Your task to perform on an android device: When is my next meeting? Image 0: 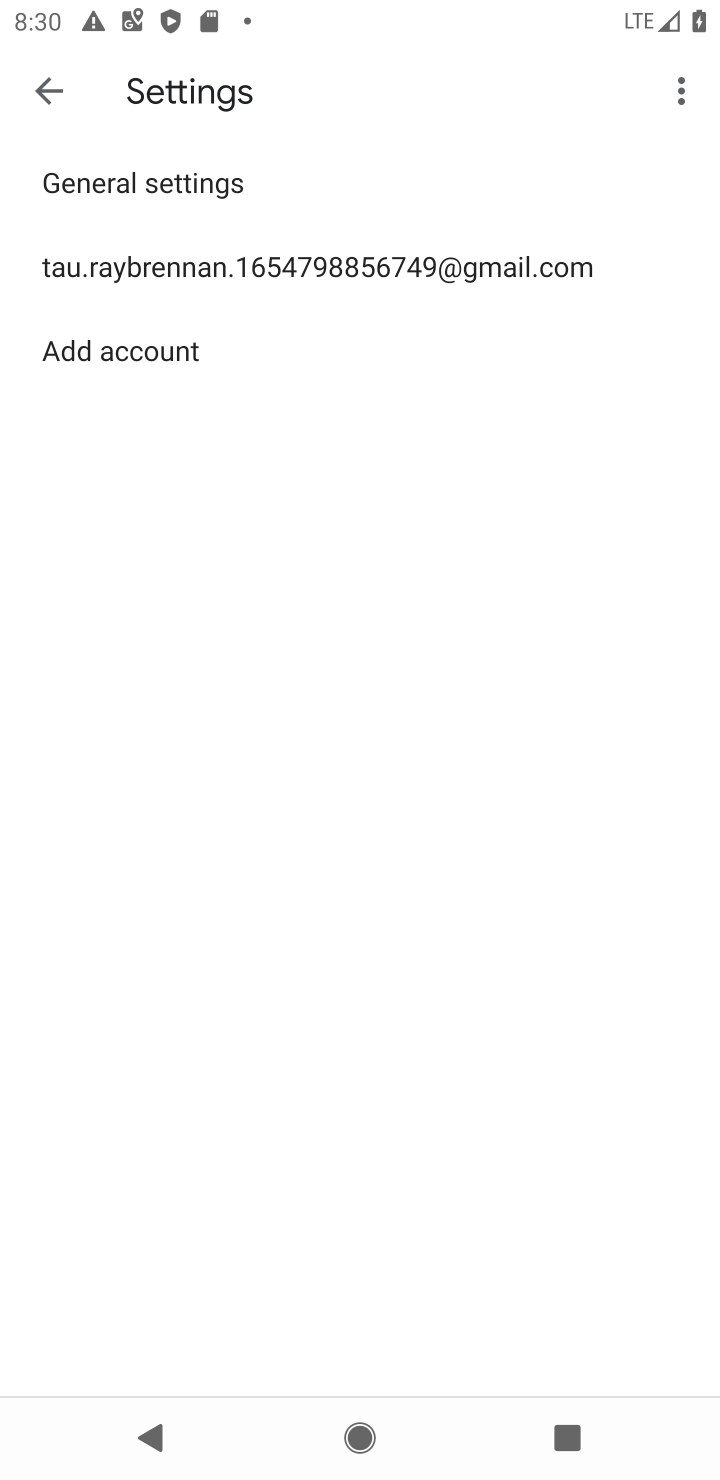
Step 0: press back button
Your task to perform on an android device: When is my next meeting? Image 1: 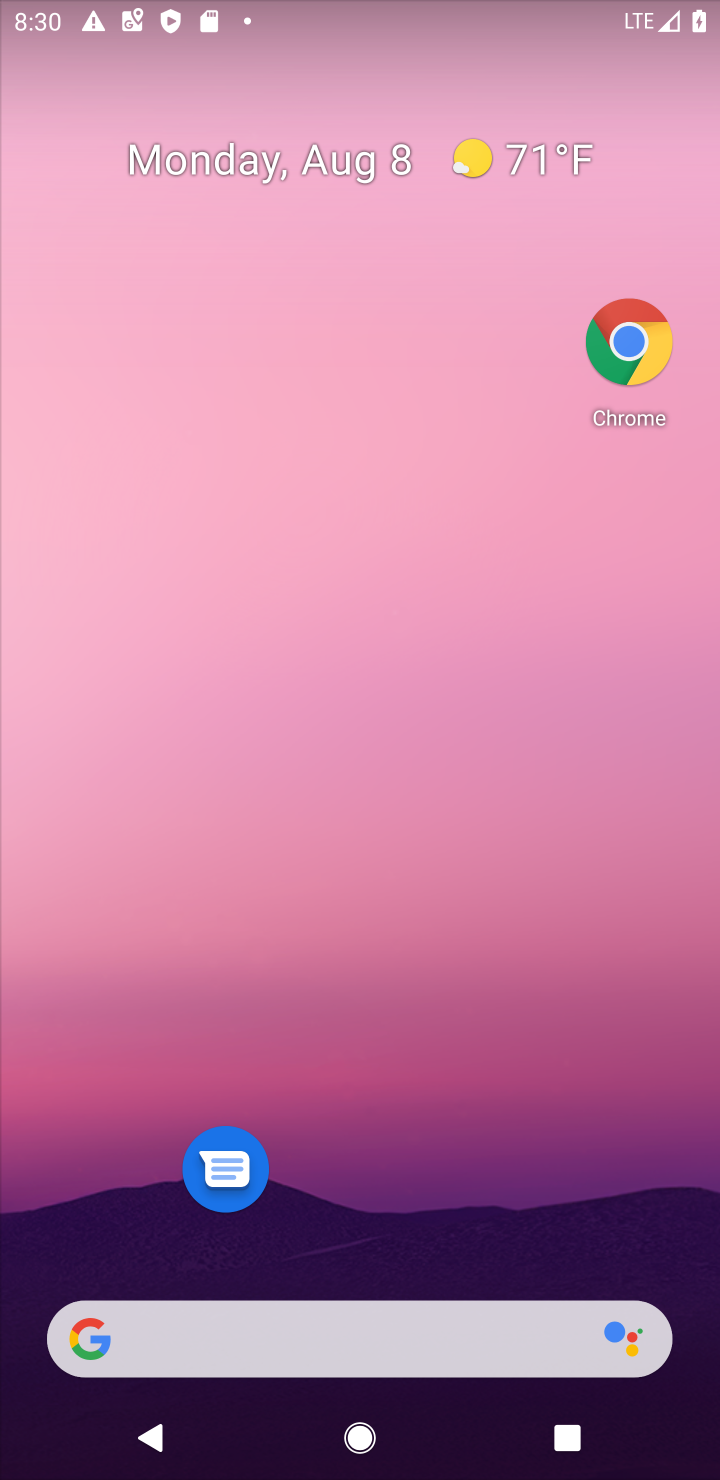
Step 1: click (378, 1324)
Your task to perform on an android device: When is my next meeting? Image 2: 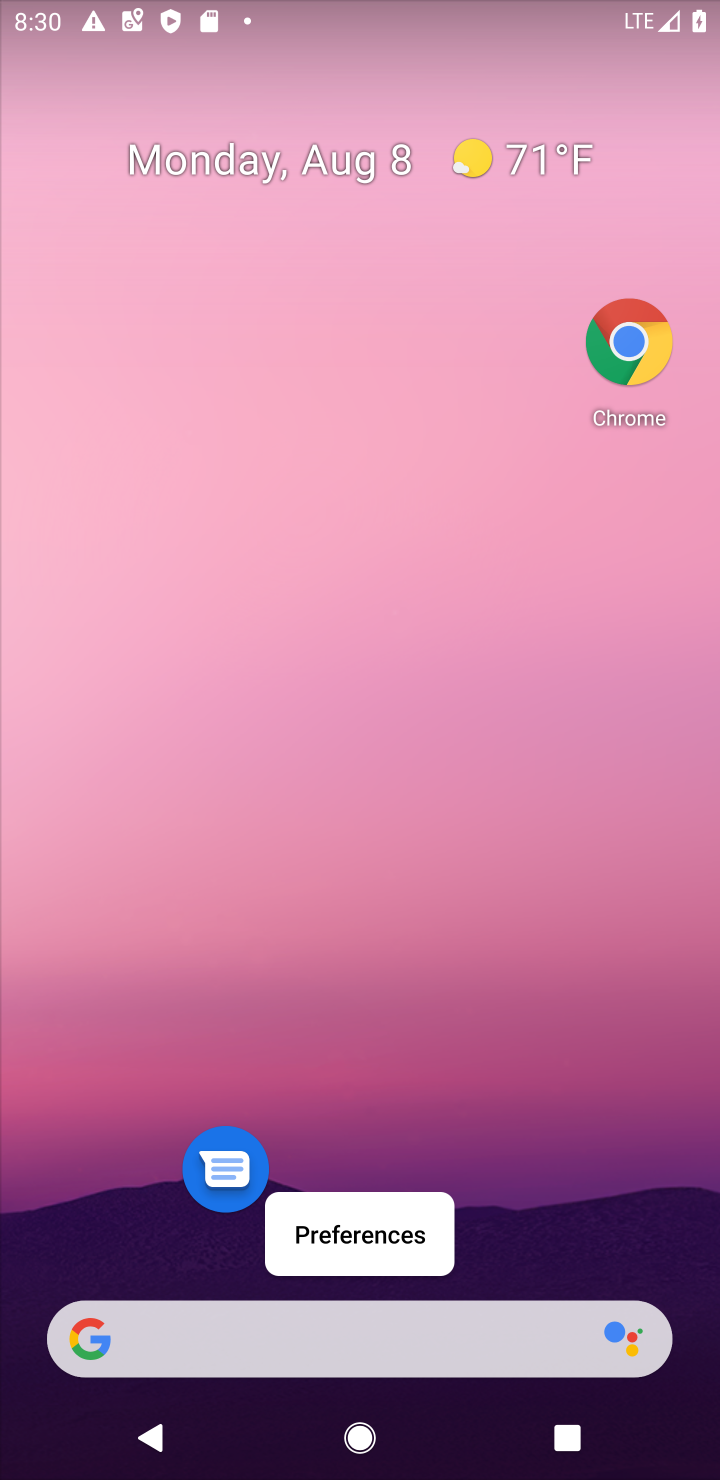
Step 2: drag from (363, 905) to (473, 81)
Your task to perform on an android device: When is my next meeting? Image 3: 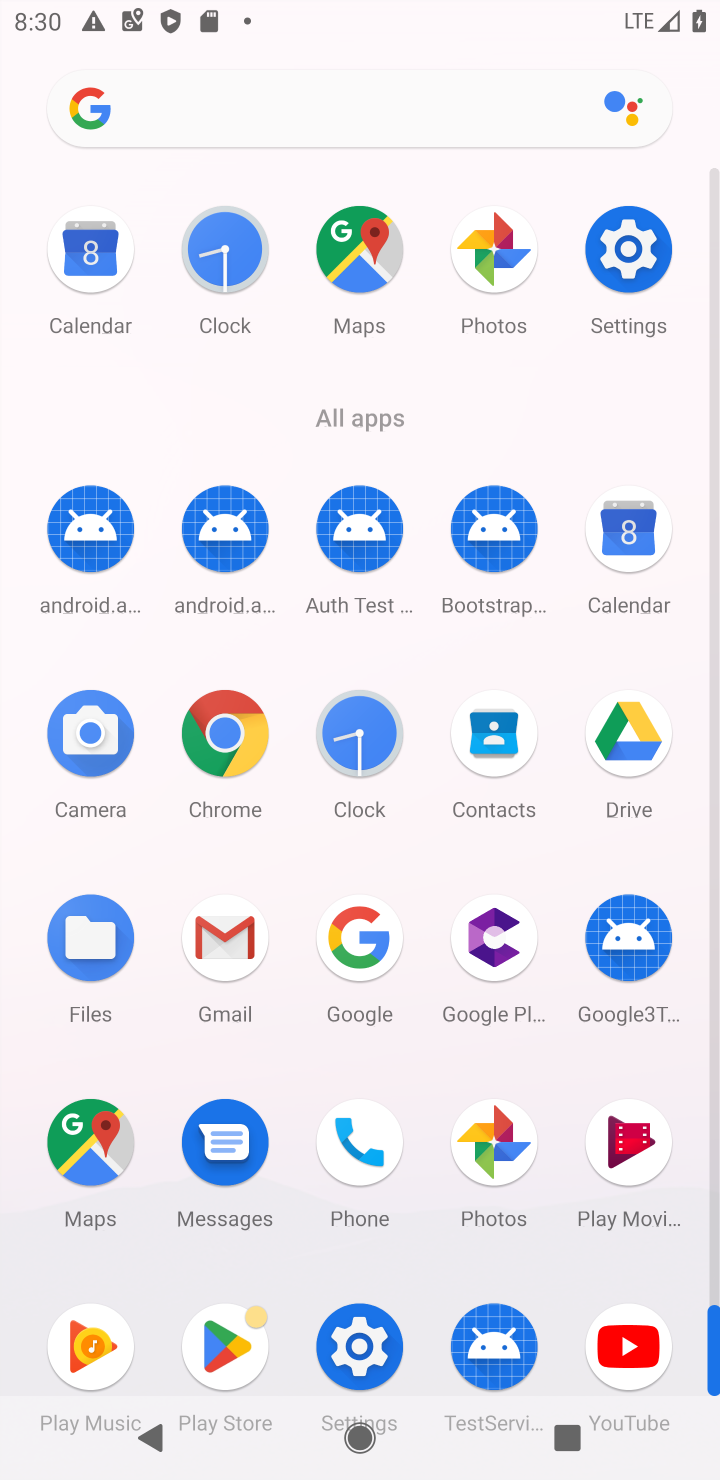
Step 3: click (610, 530)
Your task to perform on an android device: When is my next meeting? Image 4: 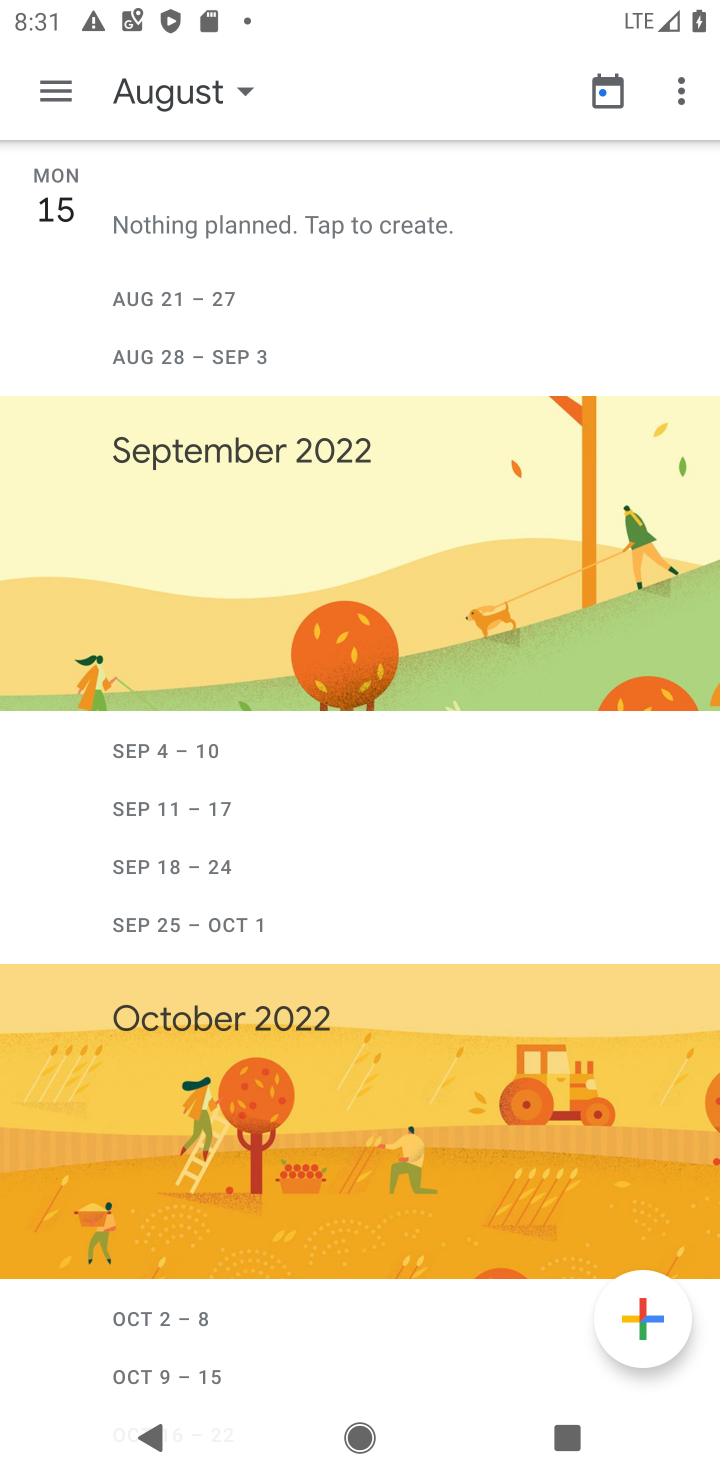
Step 4: task complete